Your task to perform on an android device: check android version Image 0: 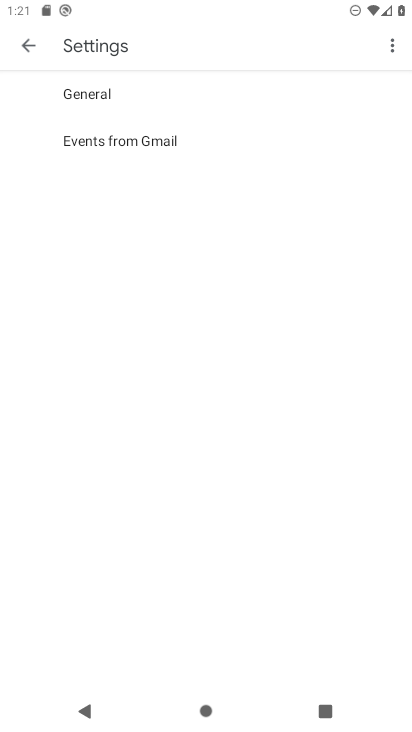
Step 0: press back button
Your task to perform on an android device: check android version Image 1: 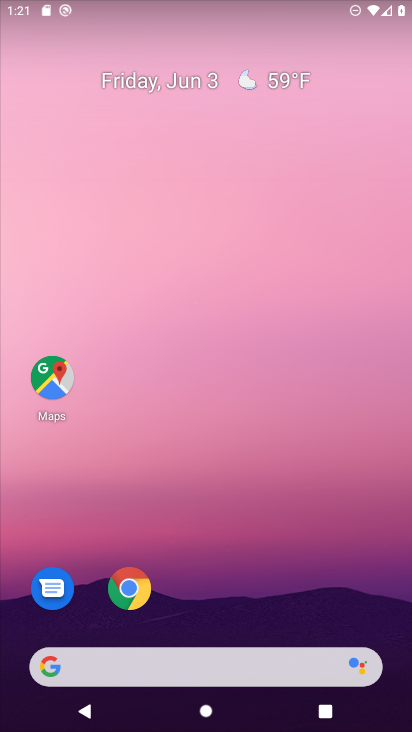
Step 1: drag from (230, 180) to (218, 40)
Your task to perform on an android device: check android version Image 2: 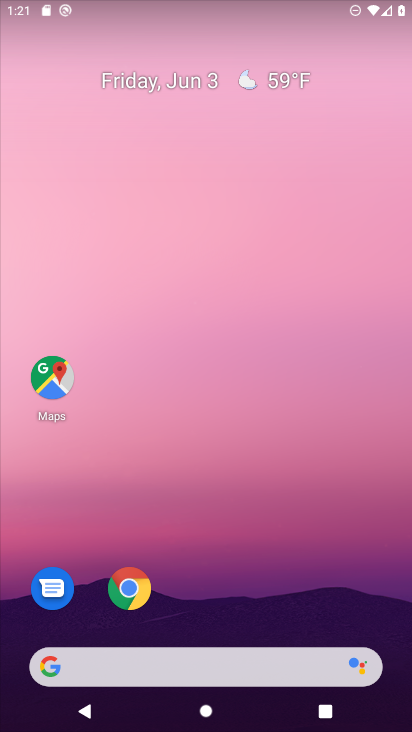
Step 2: drag from (263, 504) to (241, 0)
Your task to perform on an android device: check android version Image 3: 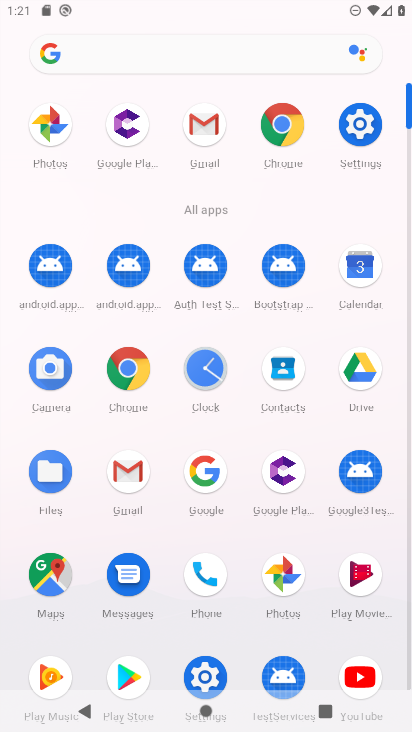
Step 3: drag from (0, 428) to (3, 186)
Your task to perform on an android device: check android version Image 4: 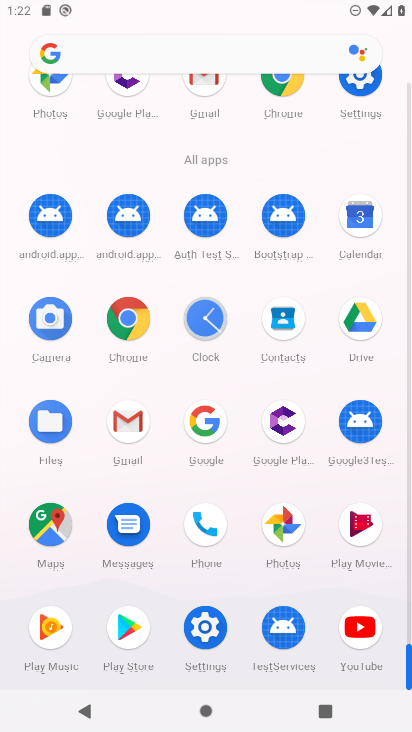
Step 4: click (204, 624)
Your task to perform on an android device: check android version Image 5: 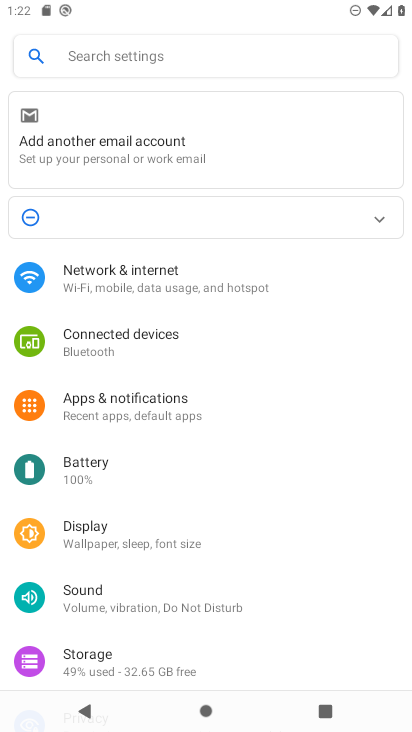
Step 5: drag from (297, 643) to (319, 211)
Your task to perform on an android device: check android version Image 6: 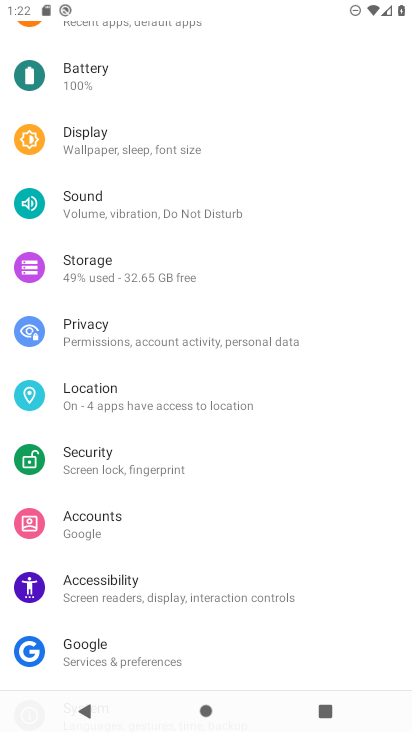
Step 6: drag from (232, 617) to (251, 84)
Your task to perform on an android device: check android version Image 7: 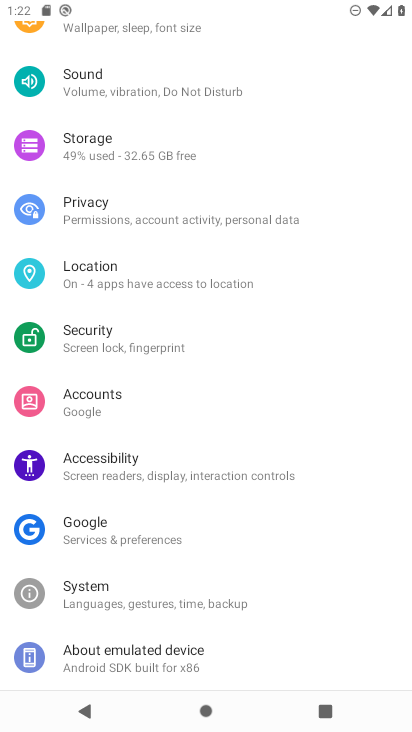
Step 7: click (196, 641)
Your task to perform on an android device: check android version Image 8: 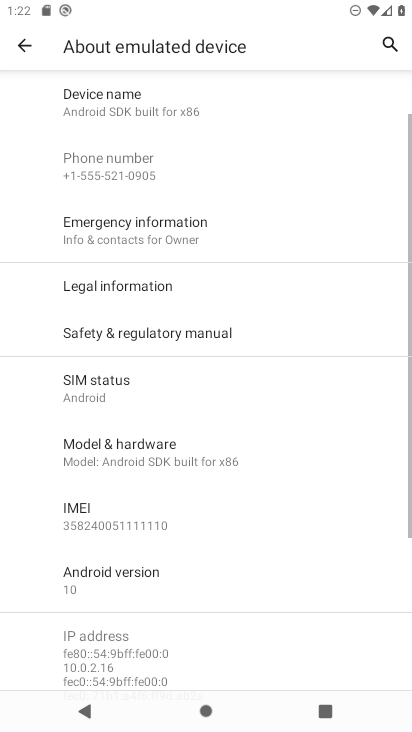
Step 8: drag from (238, 590) to (252, 201)
Your task to perform on an android device: check android version Image 9: 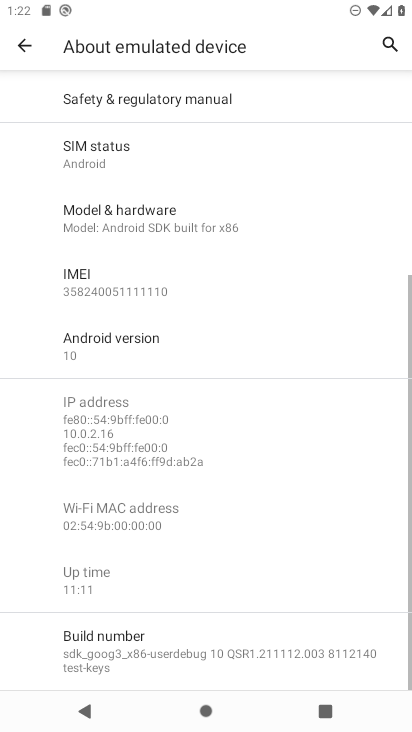
Step 9: drag from (170, 584) to (207, 178)
Your task to perform on an android device: check android version Image 10: 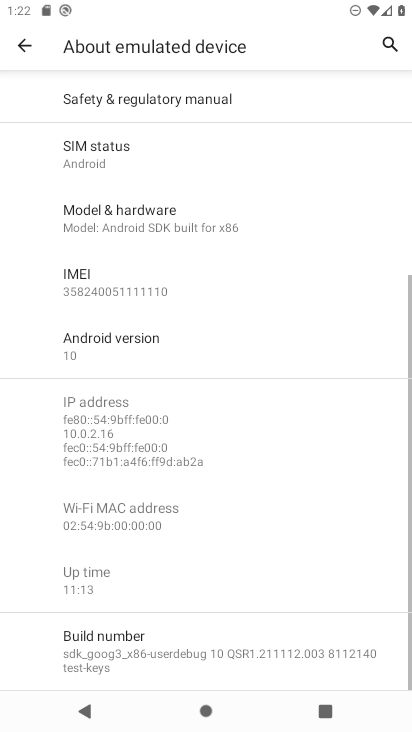
Step 10: click (103, 345)
Your task to perform on an android device: check android version Image 11: 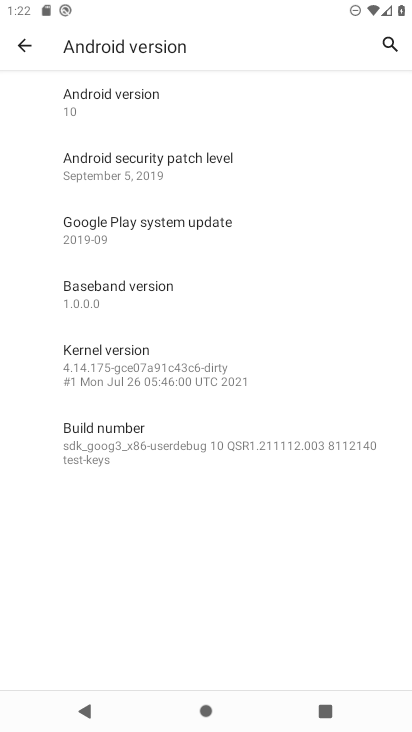
Step 11: task complete